Your task to perform on an android device: delete the emails in spam in the gmail app Image 0: 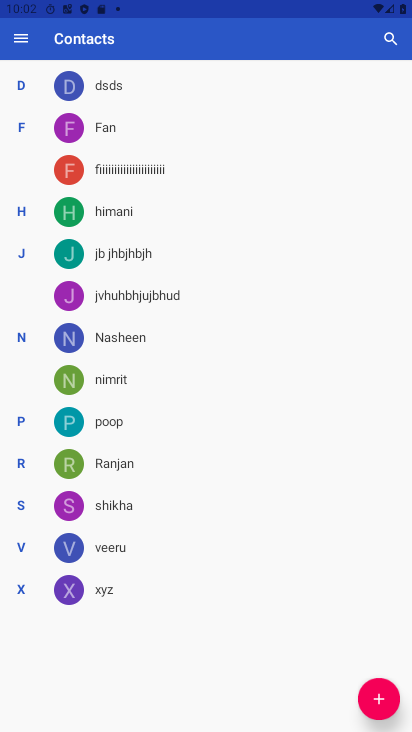
Step 0: press back button
Your task to perform on an android device: delete the emails in spam in the gmail app Image 1: 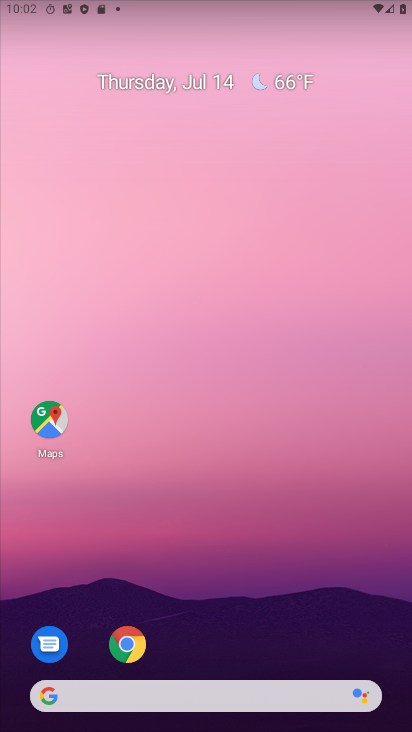
Step 1: drag from (248, 622) to (176, 93)
Your task to perform on an android device: delete the emails in spam in the gmail app Image 2: 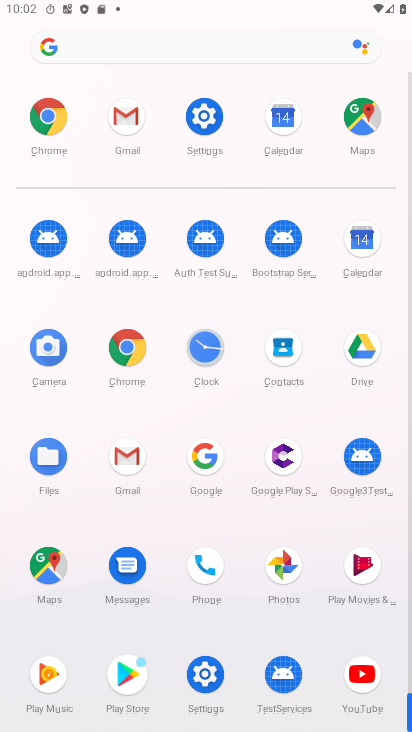
Step 2: click (118, 449)
Your task to perform on an android device: delete the emails in spam in the gmail app Image 3: 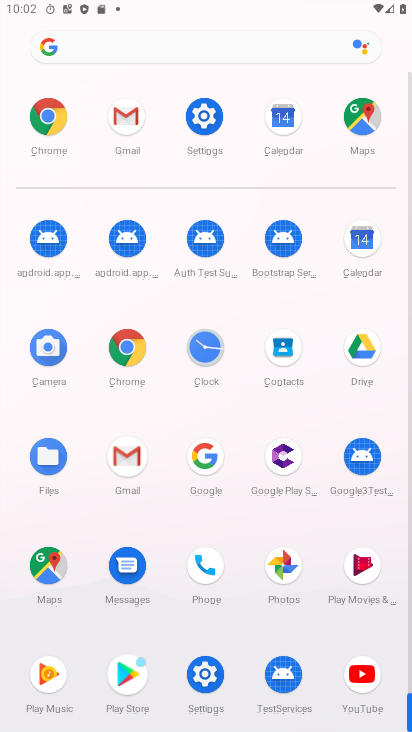
Step 3: click (119, 448)
Your task to perform on an android device: delete the emails in spam in the gmail app Image 4: 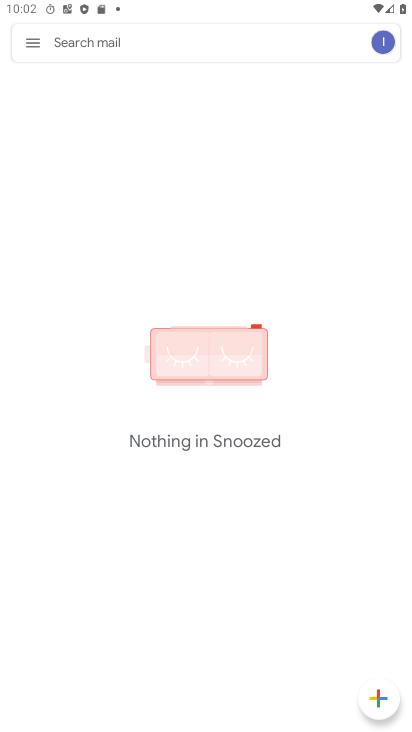
Step 4: click (30, 37)
Your task to perform on an android device: delete the emails in spam in the gmail app Image 5: 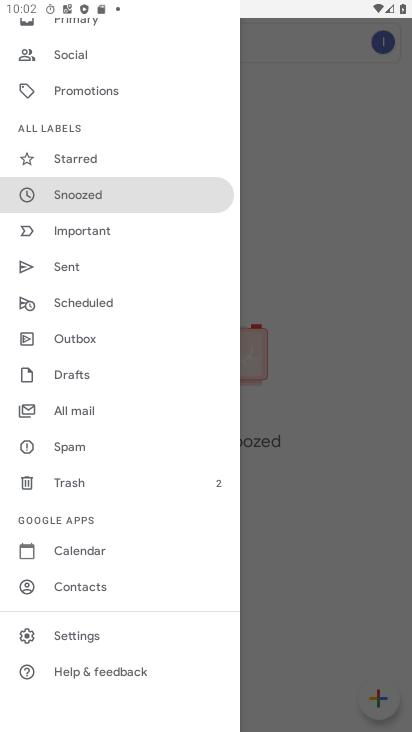
Step 5: click (64, 445)
Your task to perform on an android device: delete the emails in spam in the gmail app Image 6: 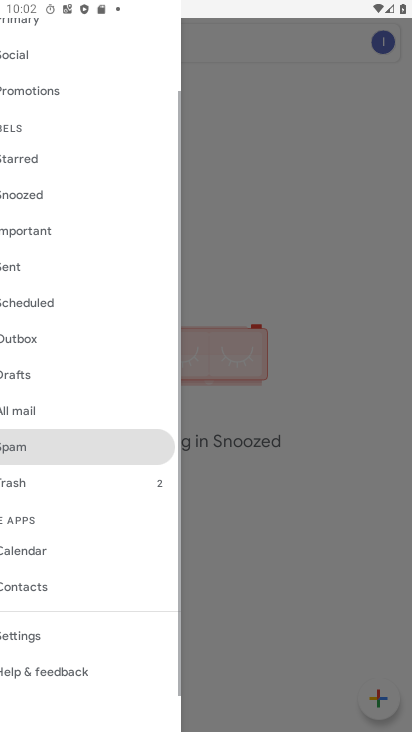
Step 6: click (64, 445)
Your task to perform on an android device: delete the emails in spam in the gmail app Image 7: 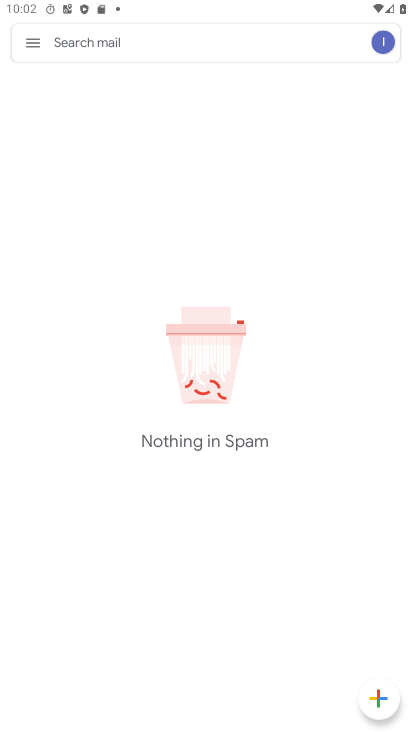
Step 7: task complete